Your task to perform on an android device: Open Amazon Image 0: 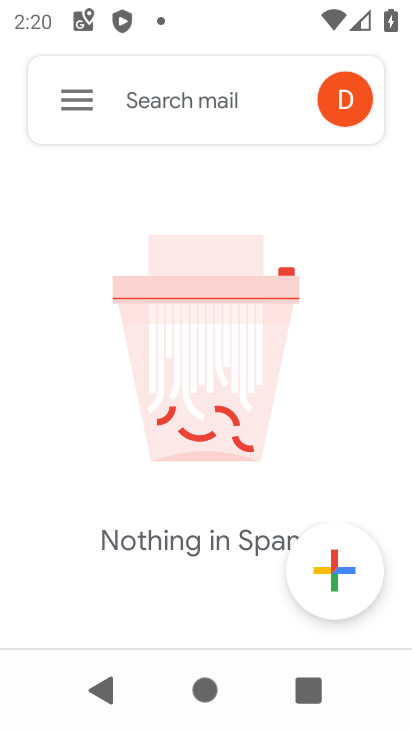
Step 0: press home button
Your task to perform on an android device: Open Amazon Image 1: 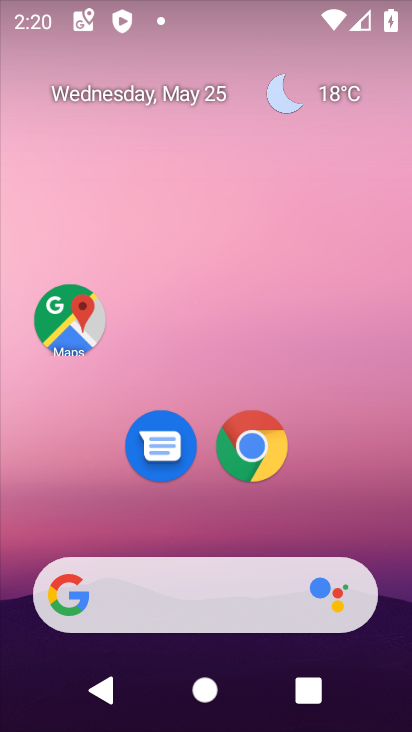
Step 1: click (245, 451)
Your task to perform on an android device: Open Amazon Image 2: 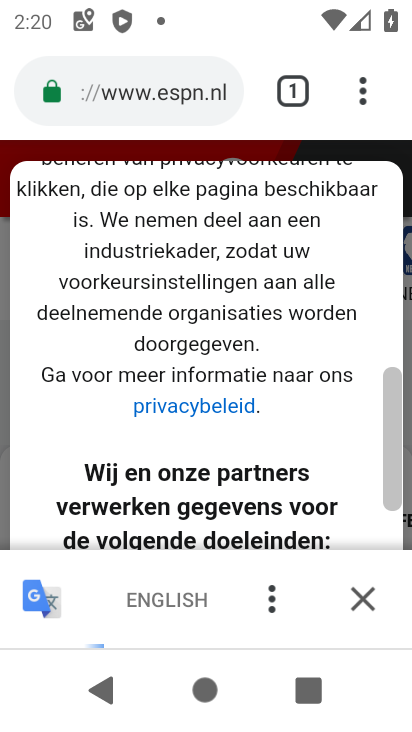
Step 2: click (177, 90)
Your task to perform on an android device: Open Amazon Image 3: 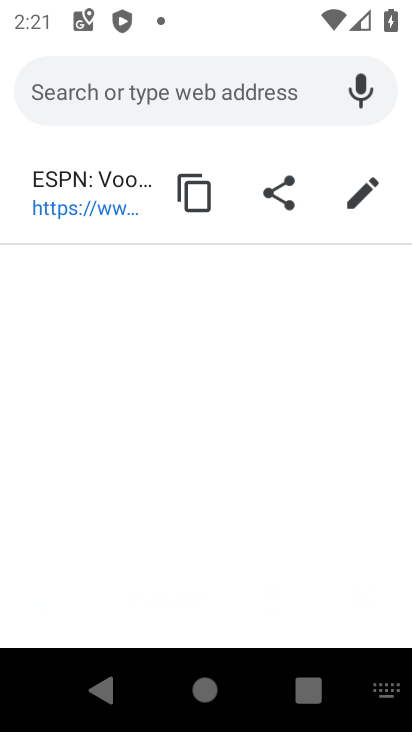
Step 3: type "amazon"
Your task to perform on an android device: Open Amazon Image 4: 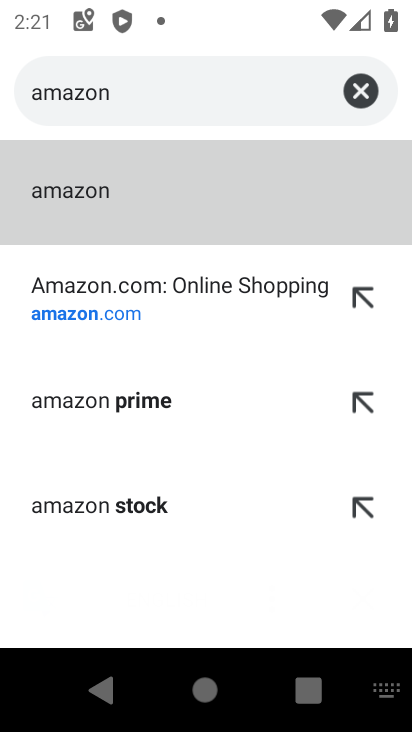
Step 4: click (267, 285)
Your task to perform on an android device: Open Amazon Image 5: 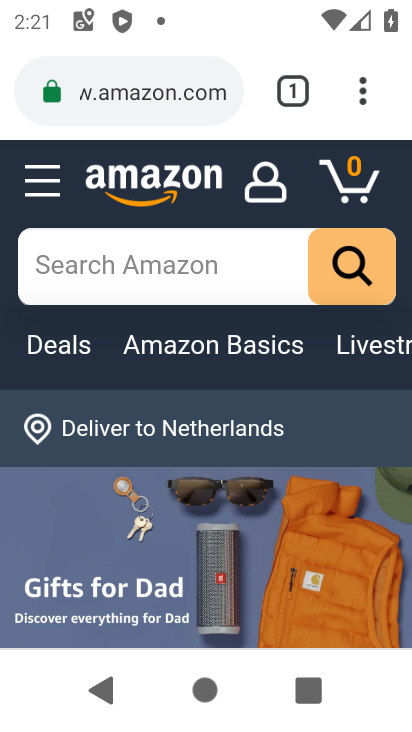
Step 5: task complete